Your task to perform on an android device: Open Chrome and go to the settings page Image 0: 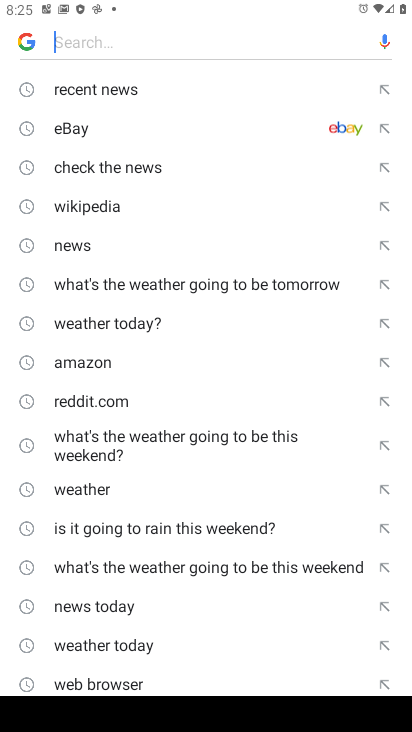
Step 0: press home button
Your task to perform on an android device: Open Chrome and go to the settings page Image 1: 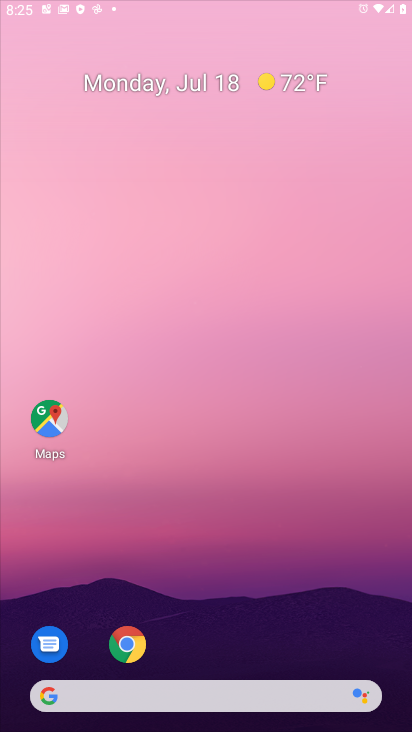
Step 1: drag from (388, 651) to (226, 8)
Your task to perform on an android device: Open Chrome and go to the settings page Image 2: 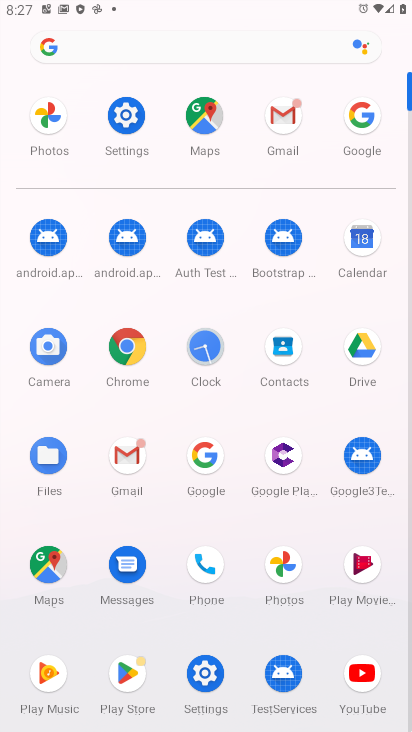
Step 2: click (141, 349)
Your task to perform on an android device: Open Chrome and go to the settings page Image 3: 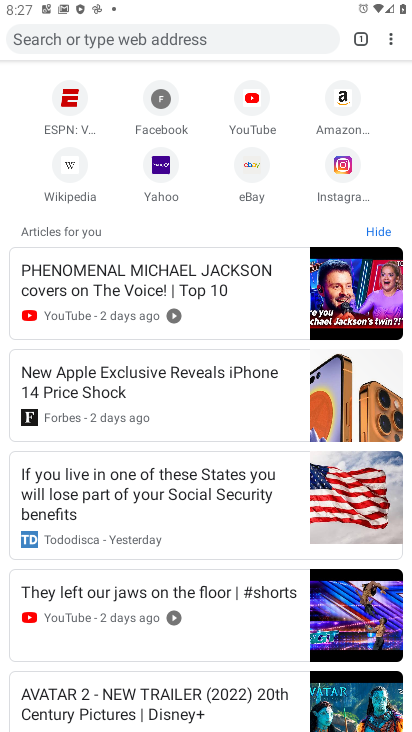
Step 3: click (390, 29)
Your task to perform on an android device: Open Chrome and go to the settings page Image 4: 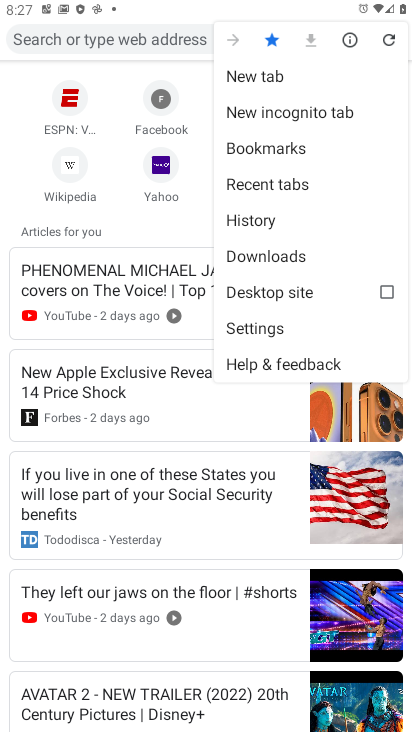
Step 4: click (265, 329)
Your task to perform on an android device: Open Chrome and go to the settings page Image 5: 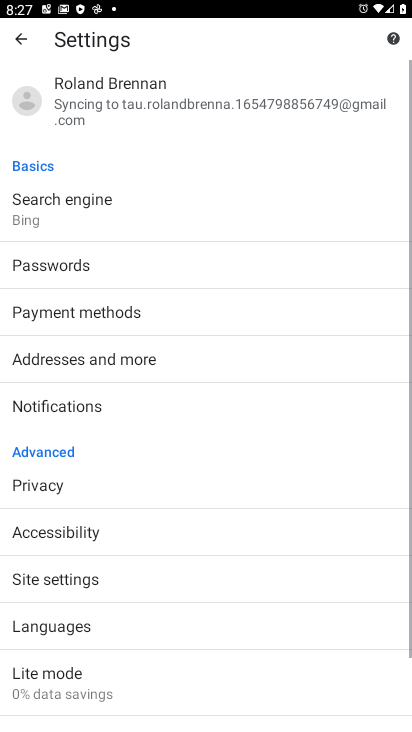
Step 5: task complete